Your task to perform on an android device: Go to Maps Image 0: 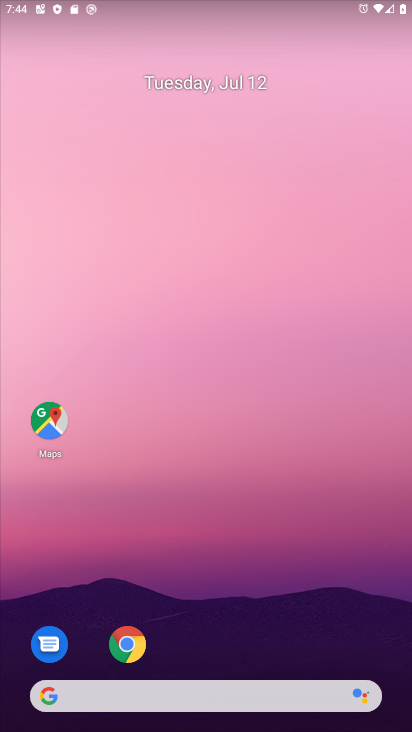
Step 0: click (65, 422)
Your task to perform on an android device: Go to Maps Image 1: 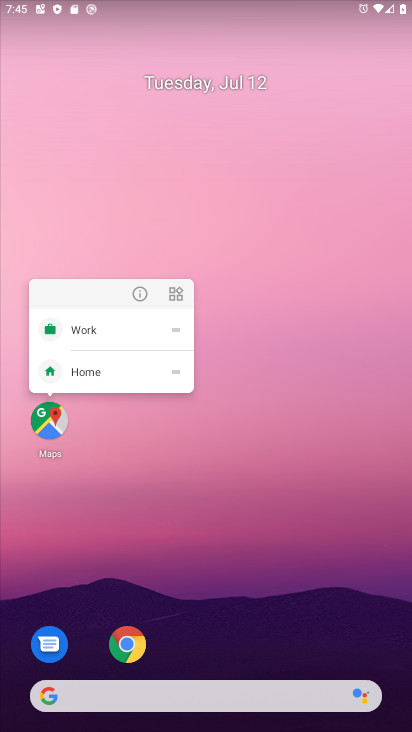
Step 1: click (70, 430)
Your task to perform on an android device: Go to Maps Image 2: 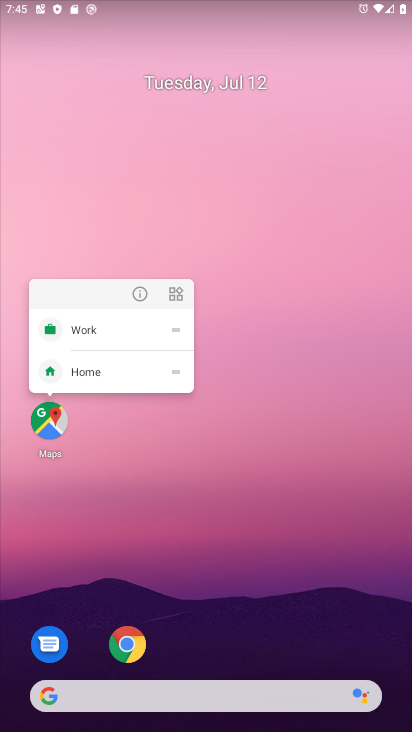
Step 2: click (63, 429)
Your task to perform on an android device: Go to Maps Image 3: 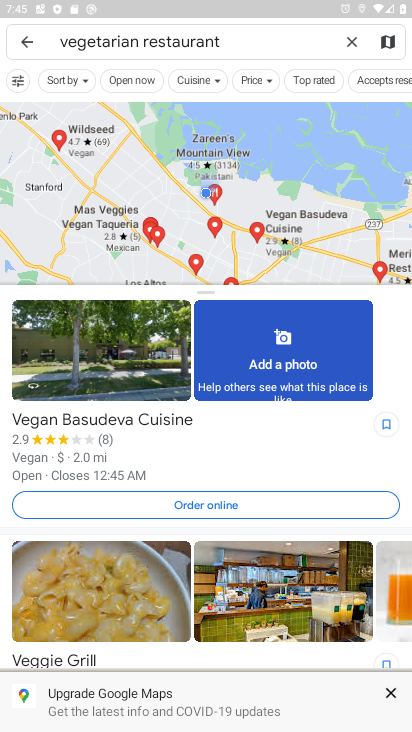
Step 3: click (27, 41)
Your task to perform on an android device: Go to Maps Image 4: 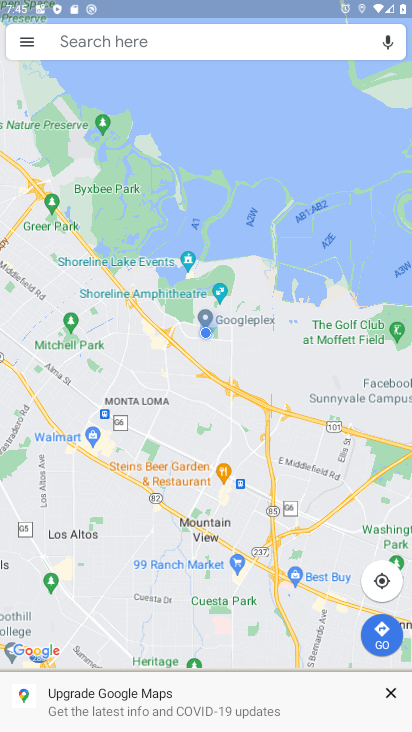
Step 4: task complete